Your task to perform on an android device: turn on bluetooth scan Image 0: 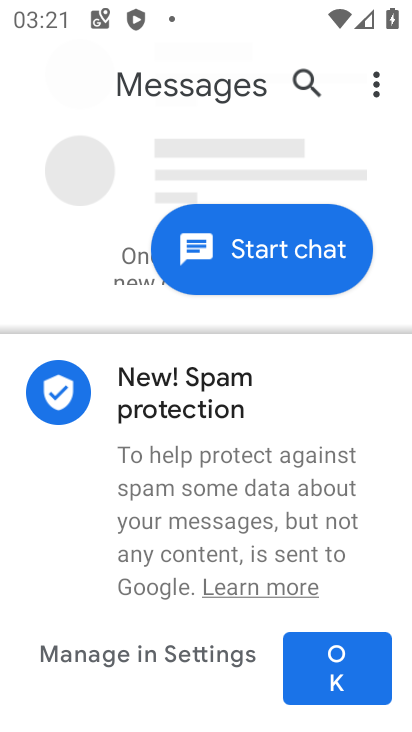
Step 0: press home button
Your task to perform on an android device: turn on bluetooth scan Image 1: 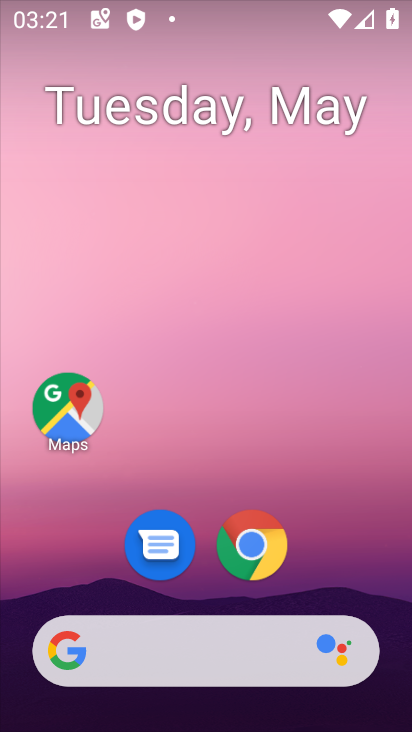
Step 1: drag from (395, 610) to (283, 99)
Your task to perform on an android device: turn on bluetooth scan Image 2: 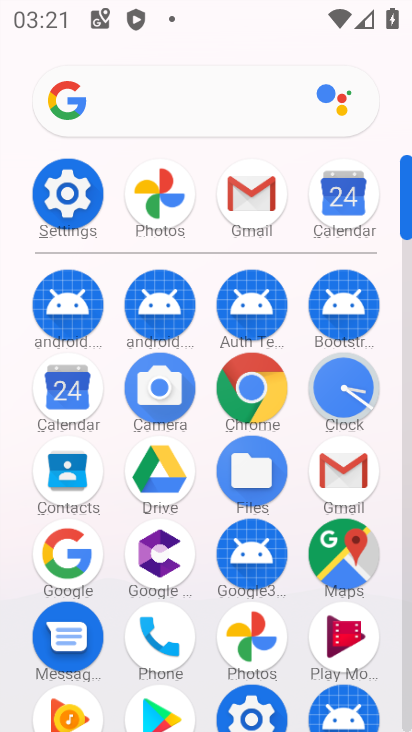
Step 2: click (407, 688)
Your task to perform on an android device: turn on bluetooth scan Image 3: 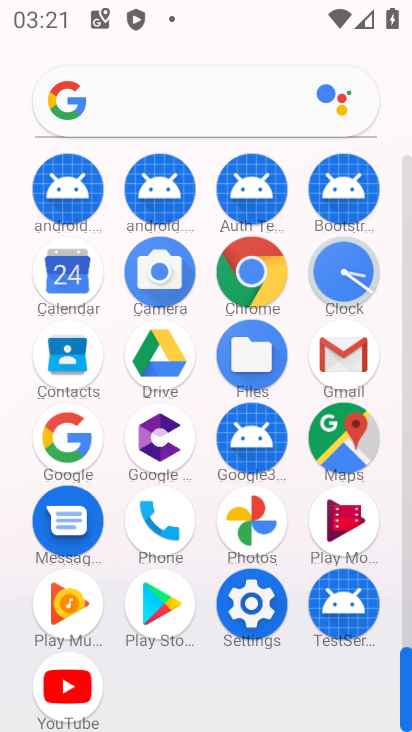
Step 3: click (249, 598)
Your task to perform on an android device: turn on bluetooth scan Image 4: 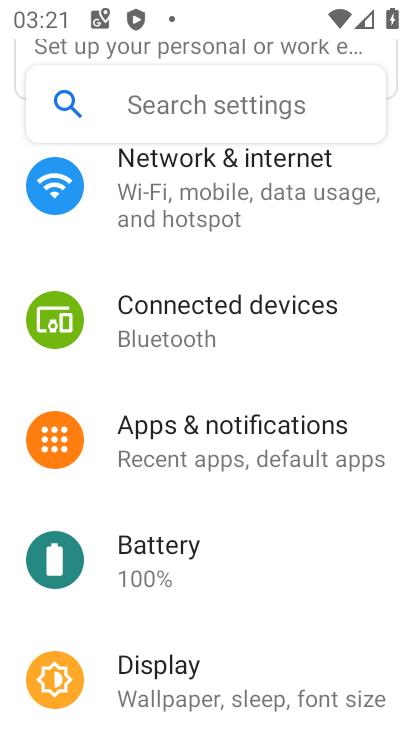
Step 4: drag from (335, 655) to (230, 258)
Your task to perform on an android device: turn on bluetooth scan Image 5: 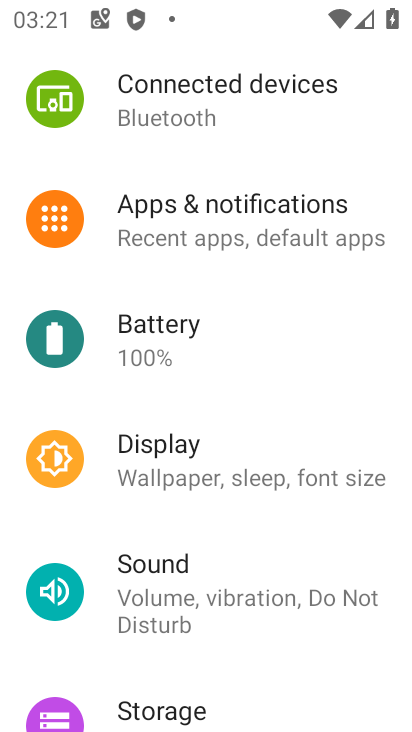
Step 5: drag from (363, 675) to (270, 288)
Your task to perform on an android device: turn on bluetooth scan Image 6: 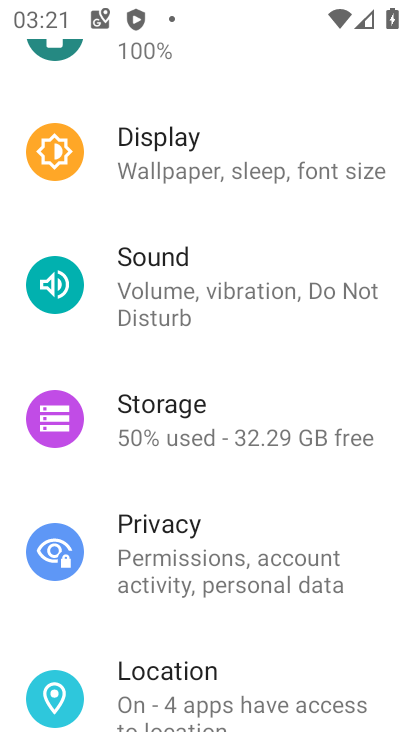
Step 6: click (209, 690)
Your task to perform on an android device: turn on bluetooth scan Image 7: 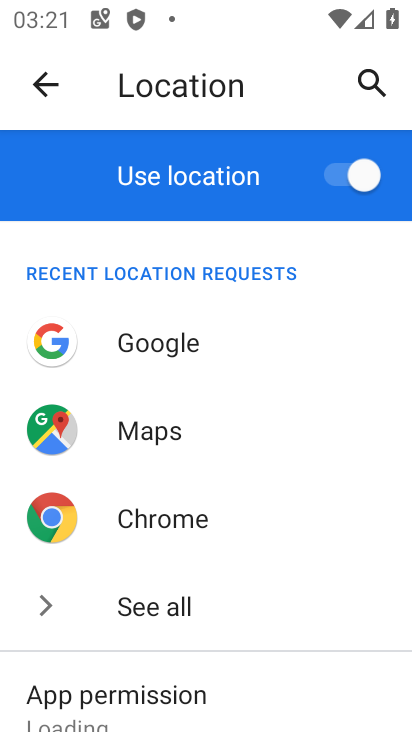
Step 7: drag from (271, 699) to (225, 335)
Your task to perform on an android device: turn on bluetooth scan Image 8: 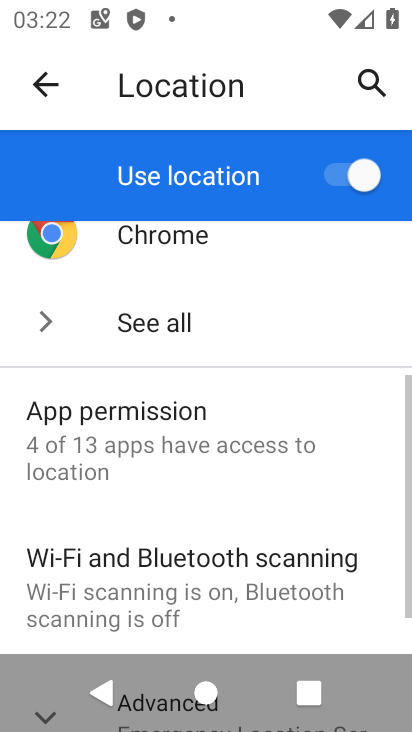
Step 8: click (147, 596)
Your task to perform on an android device: turn on bluetooth scan Image 9: 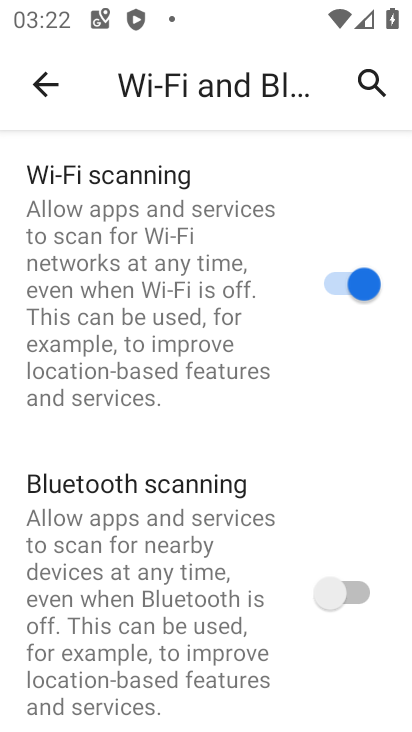
Step 9: click (356, 589)
Your task to perform on an android device: turn on bluetooth scan Image 10: 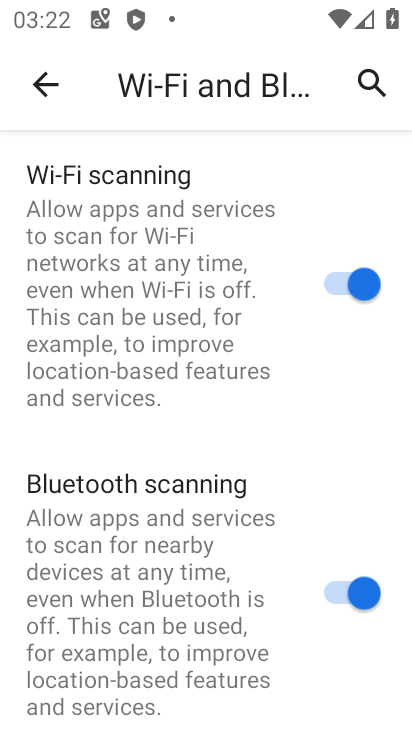
Step 10: task complete